Your task to perform on an android device: add a contact Image 0: 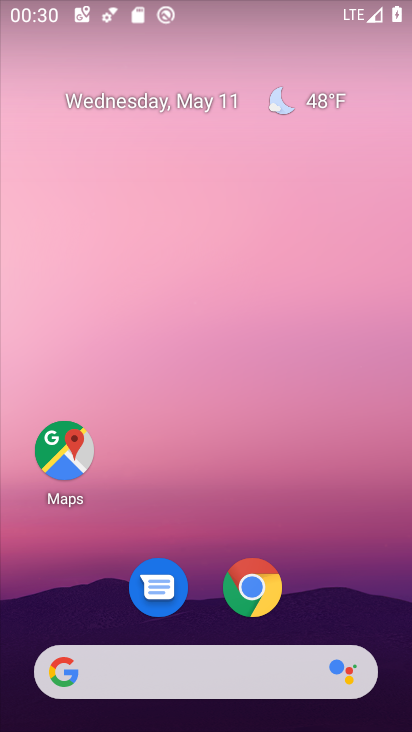
Step 0: drag from (324, 568) to (235, 194)
Your task to perform on an android device: add a contact Image 1: 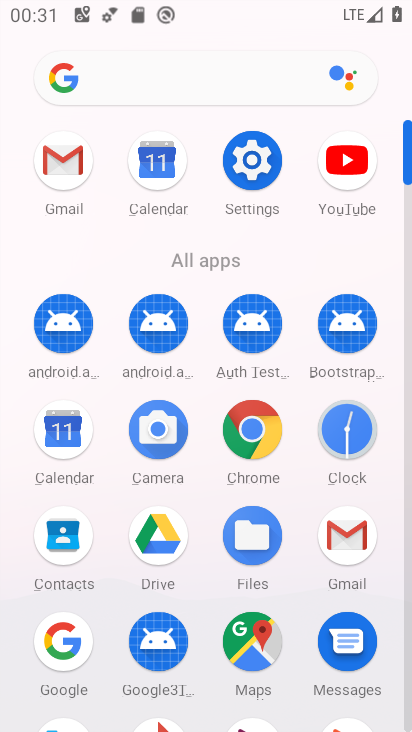
Step 1: click (67, 547)
Your task to perform on an android device: add a contact Image 2: 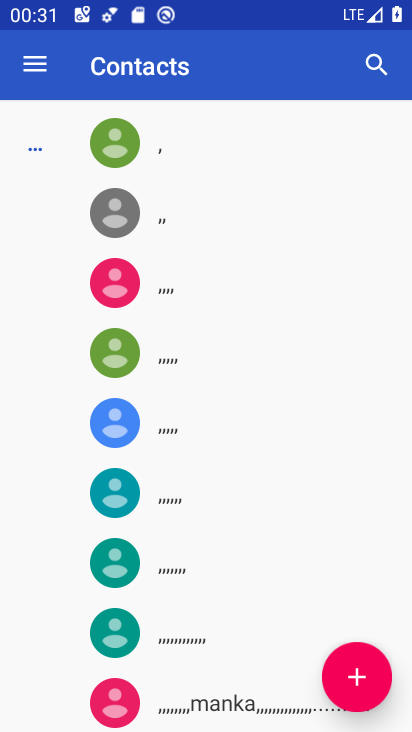
Step 2: click (362, 685)
Your task to perform on an android device: add a contact Image 3: 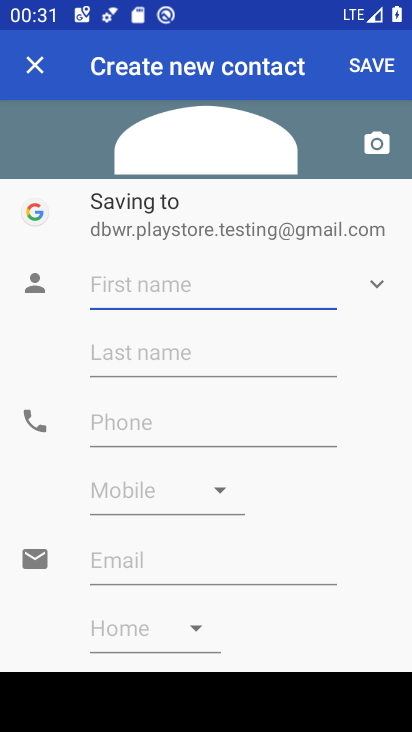
Step 3: type "jjj"
Your task to perform on an android device: add a contact Image 4: 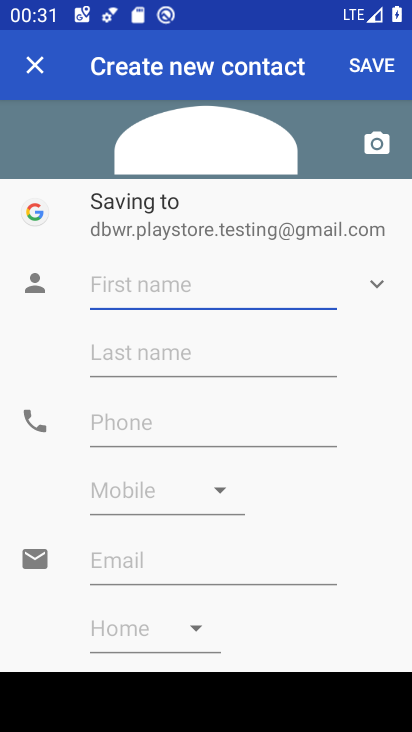
Step 4: click (284, 421)
Your task to perform on an android device: add a contact Image 5: 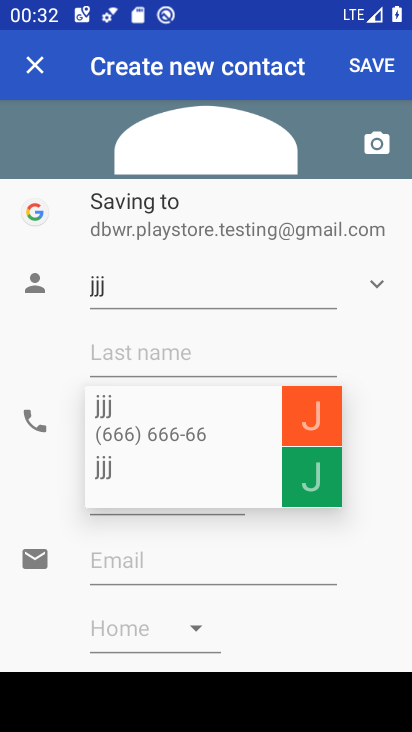
Step 5: type "9900990099"
Your task to perform on an android device: add a contact Image 6: 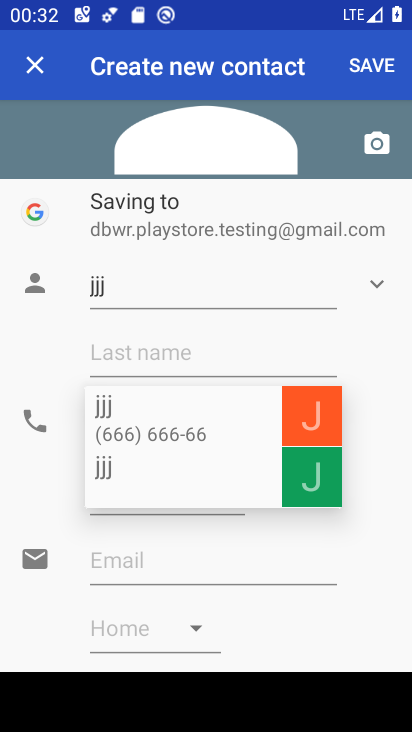
Step 6: click (362, 63)
Your task to perform on an android device: add a contact Image 7: 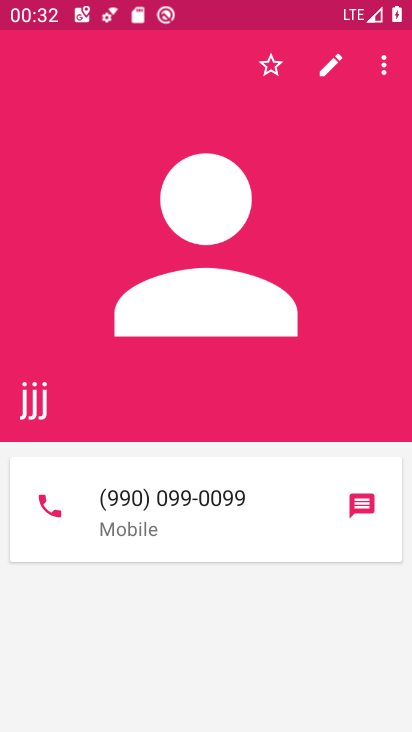
Step 7: task complete